Your task to perform on an android device: Check the weather Image 0: 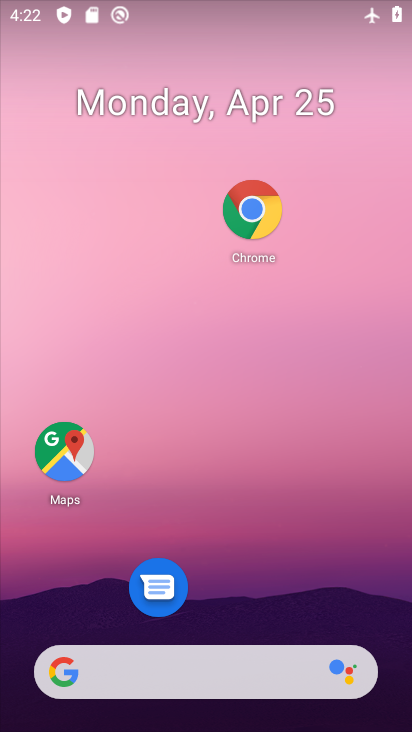
Step 0: drag from (164, 14) to (161, 282)
Your task to perform on an android device: Check the weather Image 1: 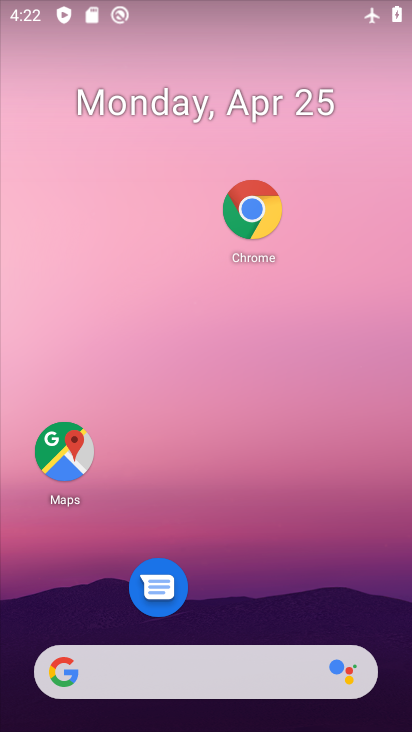
Step 1: drag from (236, 3) to (261, 511)
Your task to perform on an android device: Check the weather Image 2: 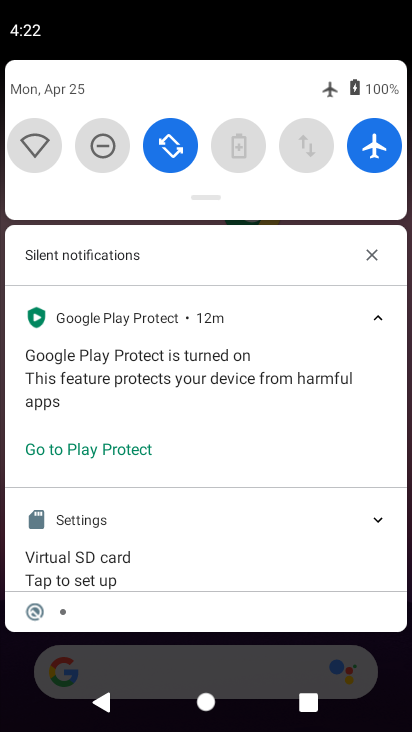
Step 2: click (379, 145)
Your task to perform on an android device: Check the weather Image 3: 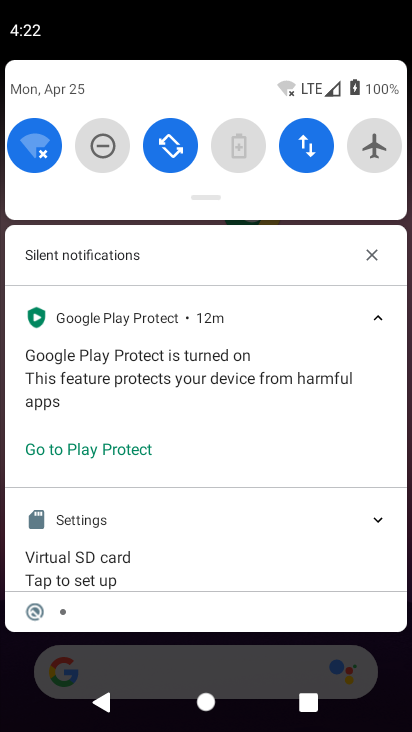
Step 3: press home button
Your task to perform on an android device: Check the weather Image 4: 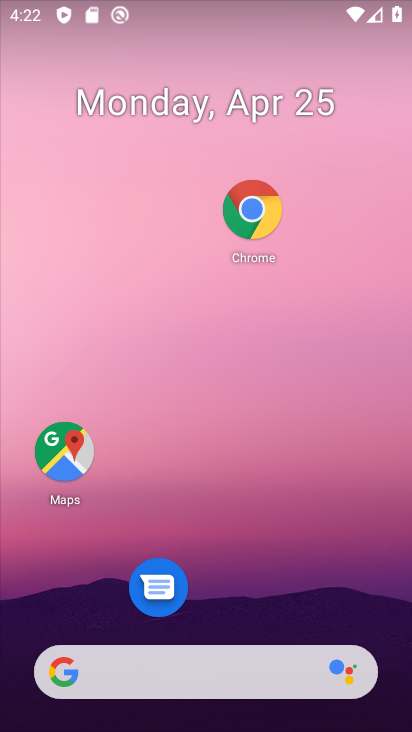
Step 4: click (243, 248)
Your task to perform on an android device: Check the weather Image 5: 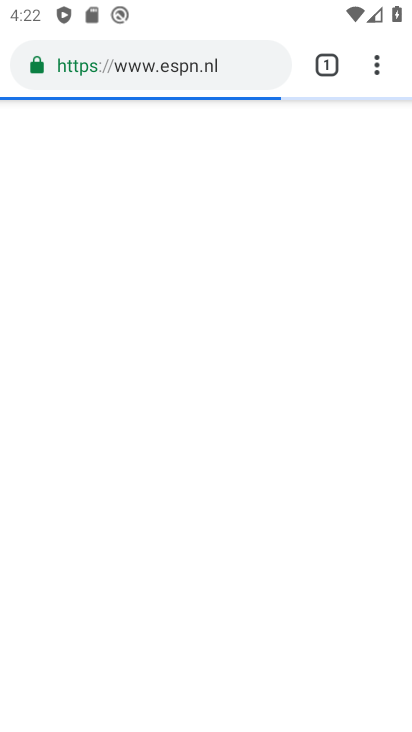
Step 5: click (178, 82)
Your task to perform on an android device: Check the weather Image 6: 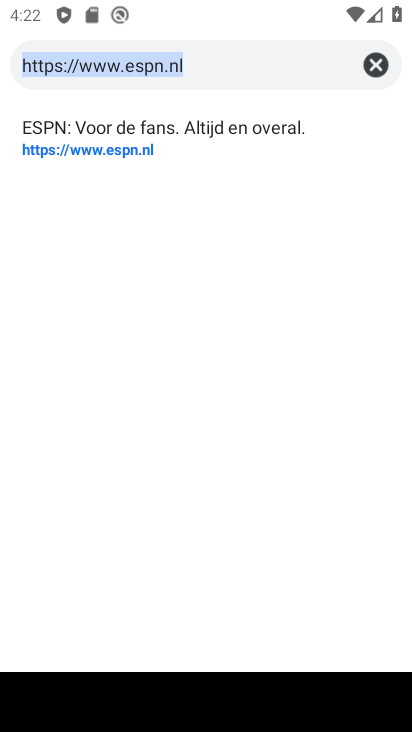
Step 6: type "weather"
Your task to perform on an android device: Check the weather Image 7: 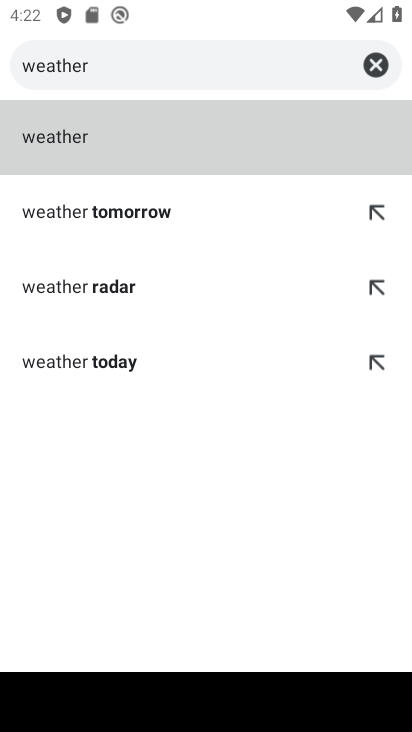
Step 7: click (39, 141)
Your task to perform on an android device: Check the weather Image 8: 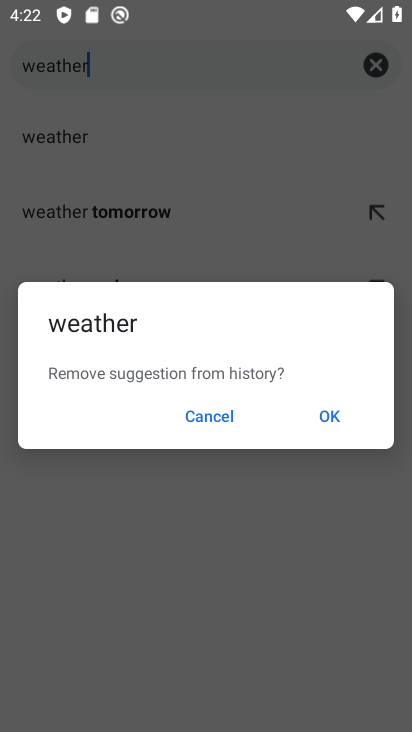
Step 8: click (211, 421)
Your task to perform on an android device: Check the weather Image 9: 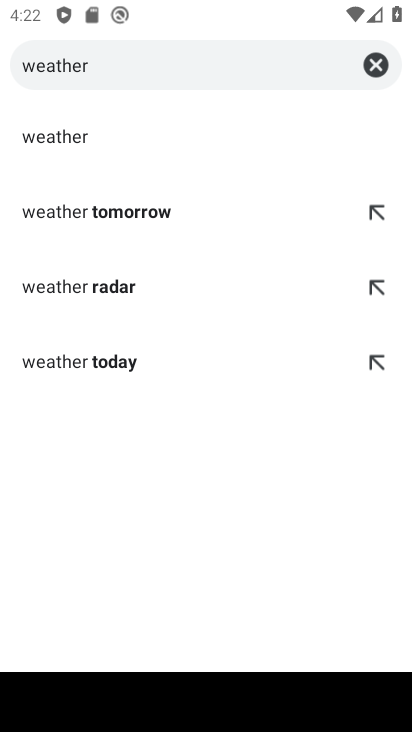
Step 9: click (126, 147)
Your task to perform on an android device: Check the weather Image 10: 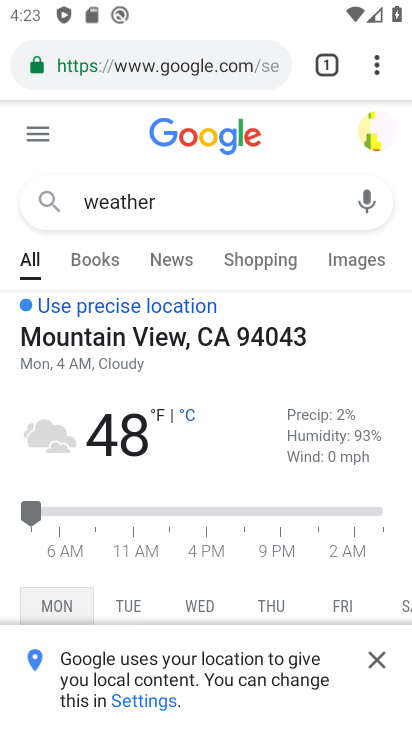
Step 10: task complete